Your task to perform on an android device: Turn off the flashlight Image 0: 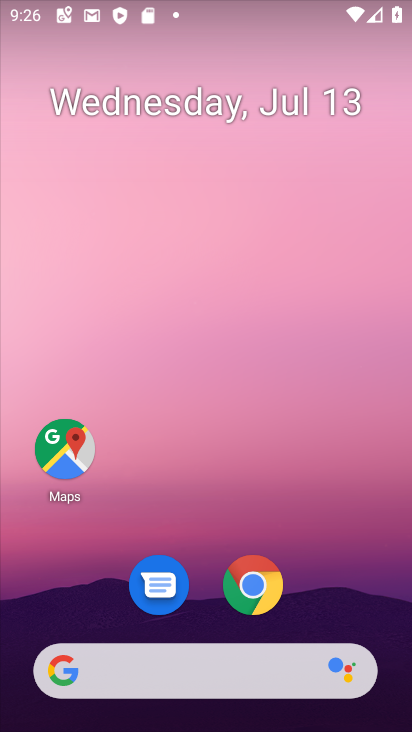
Step 0: drag from (282, 480) to (285, 49)
Your task to perform on an android device: Turn off the flashlight Image 1: 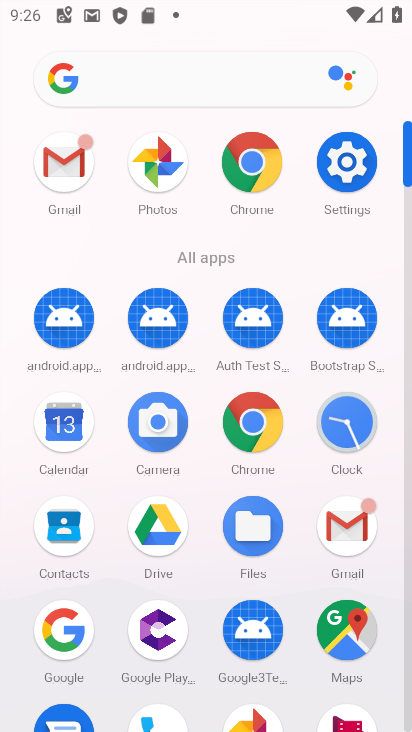
Step 1: click (346, 144)
Your task to perform on an android device: Turn off the flashlight Image 2: 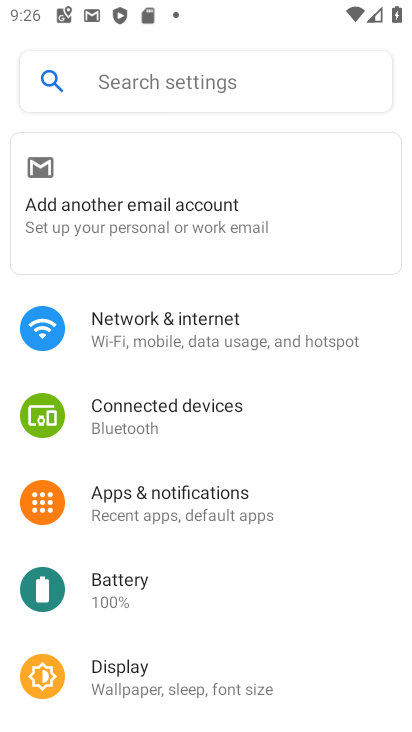
Step 2: click (299, 92)
Your task to perform on an android device: Turn off the flashlight Image 3: 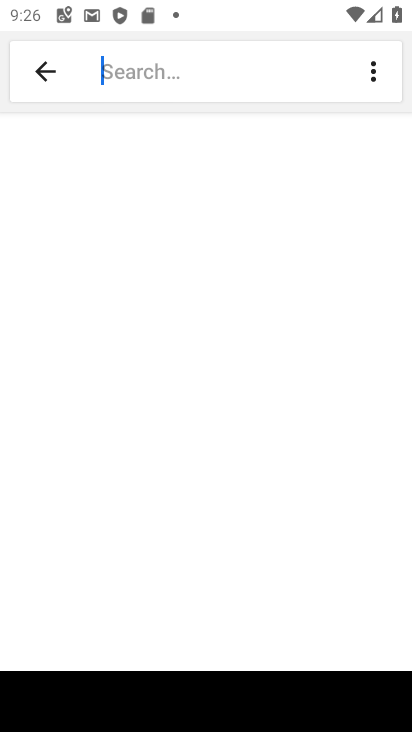
Step 3: type "Flashlight"
Your task to perform on an android device: Turn off the flashlight Image 4: 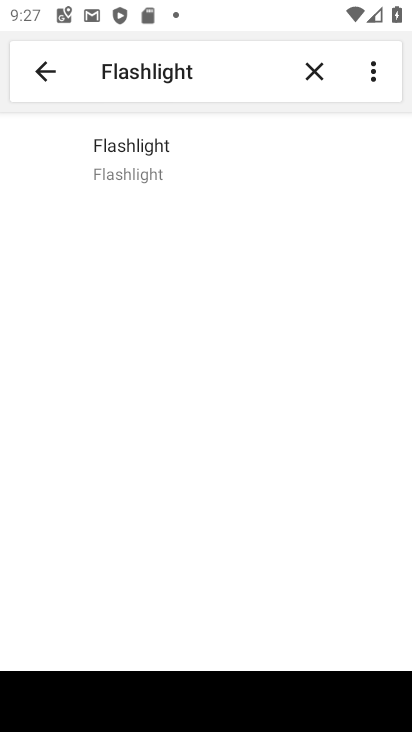
Step 4: click (133, 153)
Your task to perform on an android device: Turn off the flashlight Image 5: 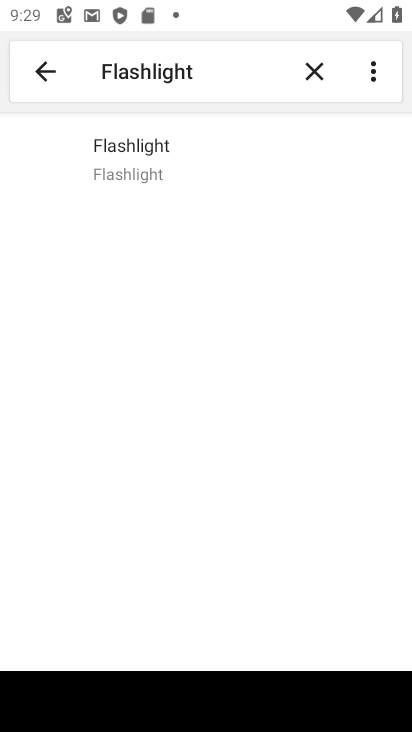
Step 5: task complete